Your task to perform on an android device: What's the weather going to be tomorrow? Image 0: 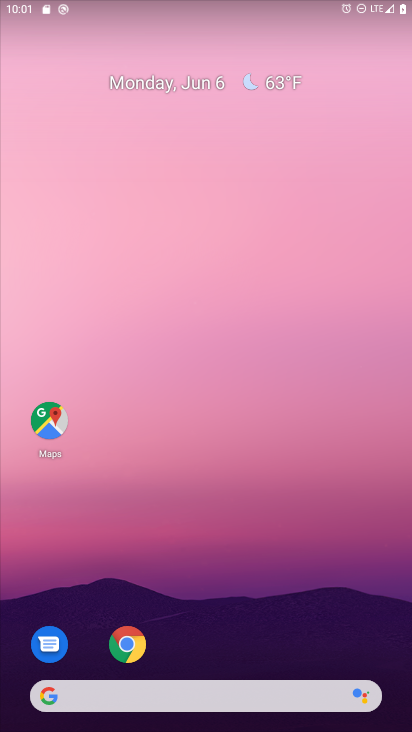
Step 0: drag from (232, 713) to (204, 243)
Your task to perform on an android device: What's the weather going to be tomorrow? Image 1: 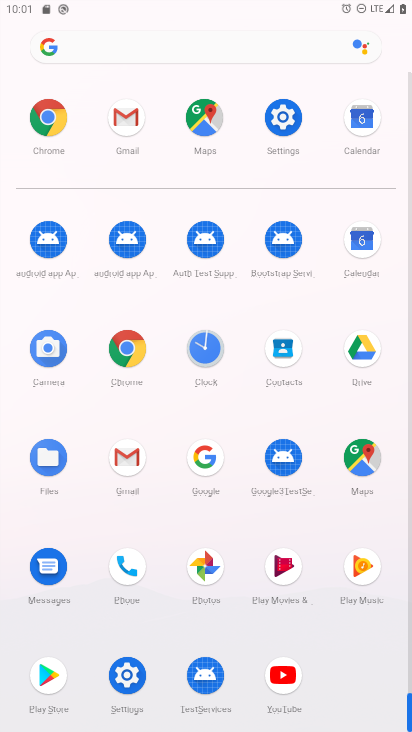
Step 1: click (353, 242)
Your task to perform on an android device: What's the weather going to be tomorrow? Image 2: 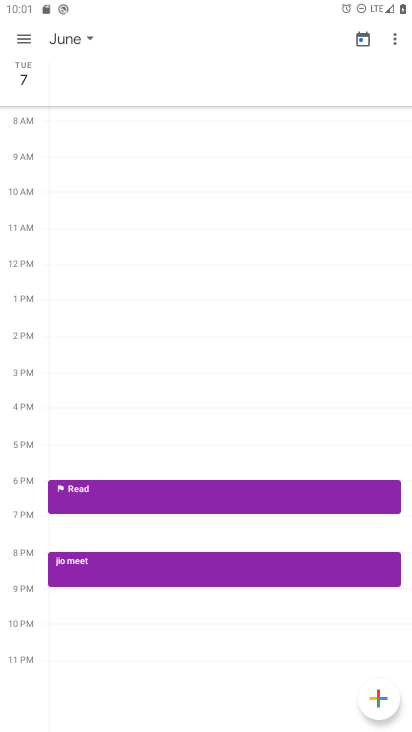
Step 2: press home button
Your task to perform on an android device: What's the weather going to be tomorrow? Image 3: 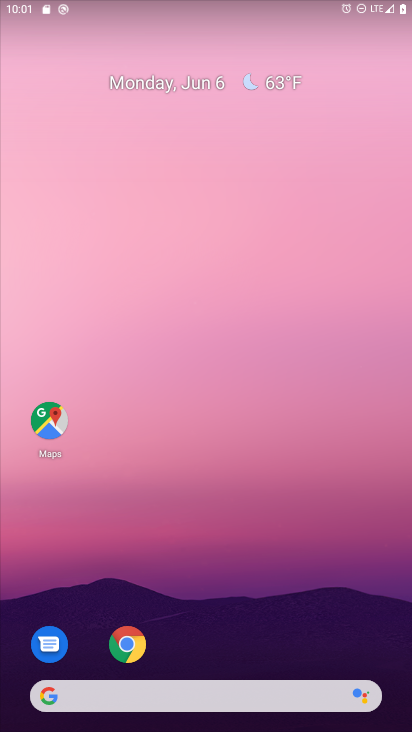
Step 3: click (168, 693)
Your task to perform on an android device: What's the weather going to be tomorrow? Image 4: 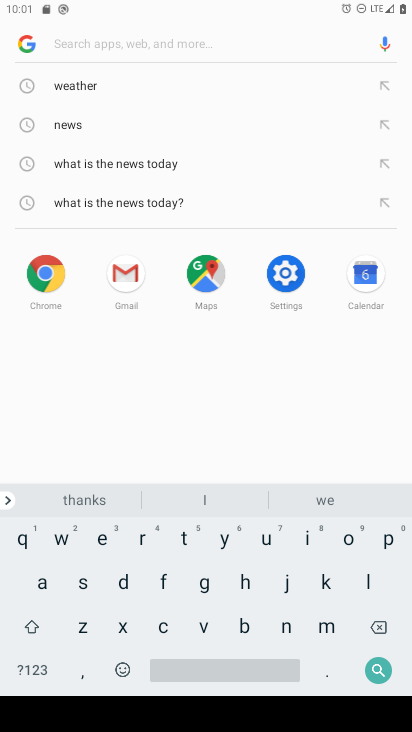
Step 4: click (123, 86)
Your task to perform on an android device: What's the weather going to be tomorrow? Image 5: 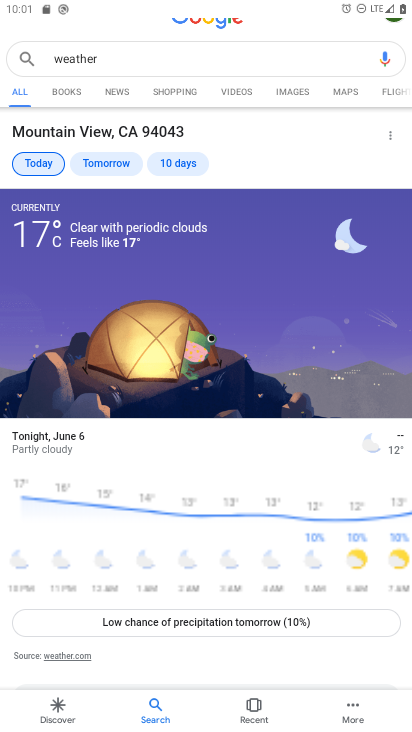
Step 5: click (113, 166)
Your task to perform on an android device: What's the weather going to be tomorrow? Image 6: 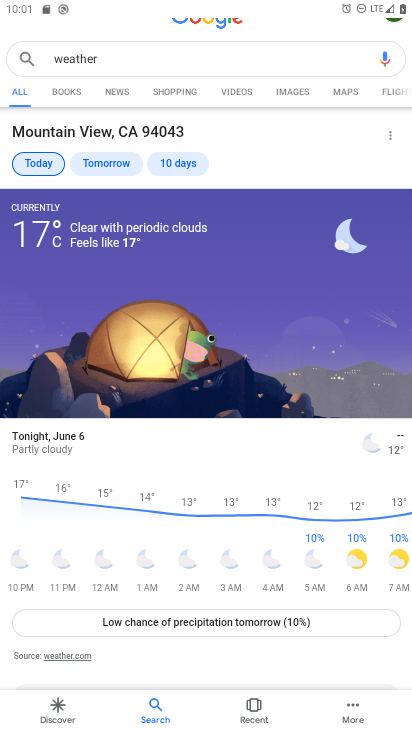
Step 6: click (113, 166)
Your task to perform on an android device: What's the weather going to be tomorrow? Image 7: 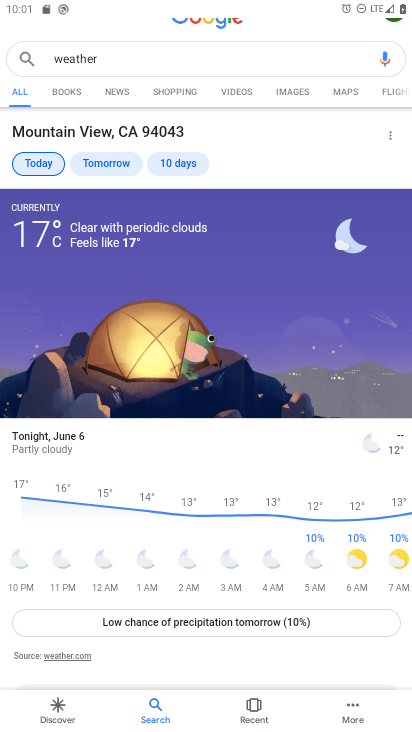
Step 7: click (113, 166)
Your task to perform on an android device: What's the weather going to be tomorrow? Image 8: 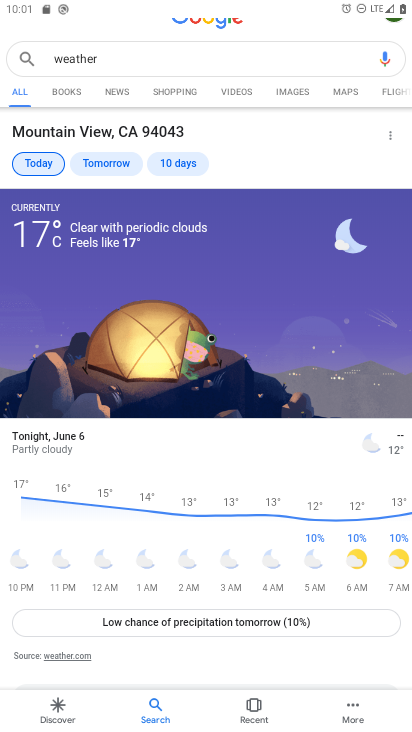
Step 8: task complete